Your task to perform on an android device: remove spam from my inbox in the gmail app Image 0: 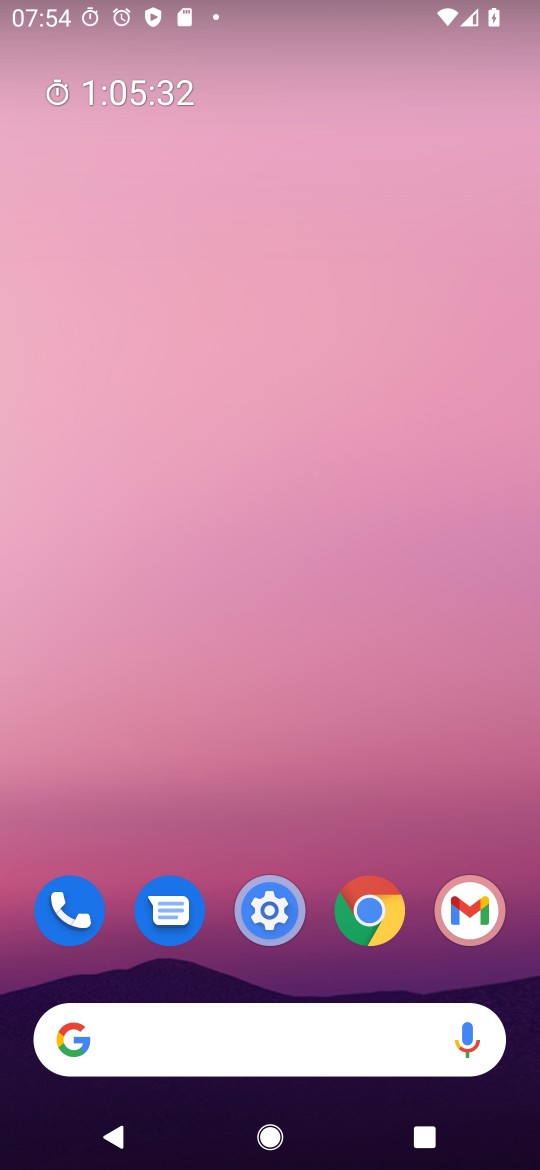
Step 0: drag from (459, 1082) to (362, 3)
Your task to perform on an android device: remove spam from my inbox in the gmail app Image 1: 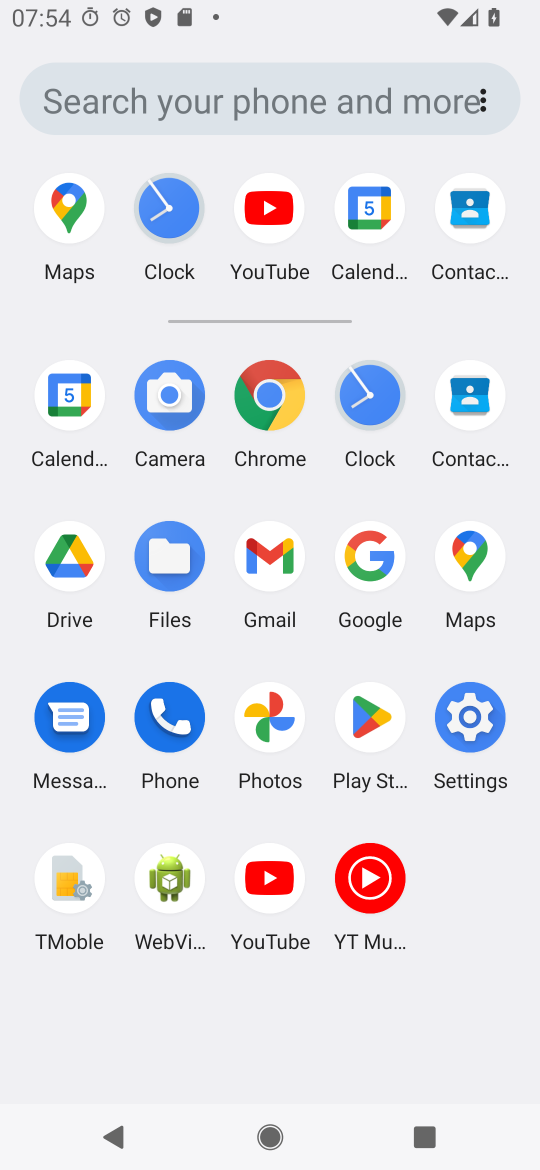
Step 1: click (282, 545)
Your task to perform on an android device: remove spam from my inbox in the gmail app Image 2: 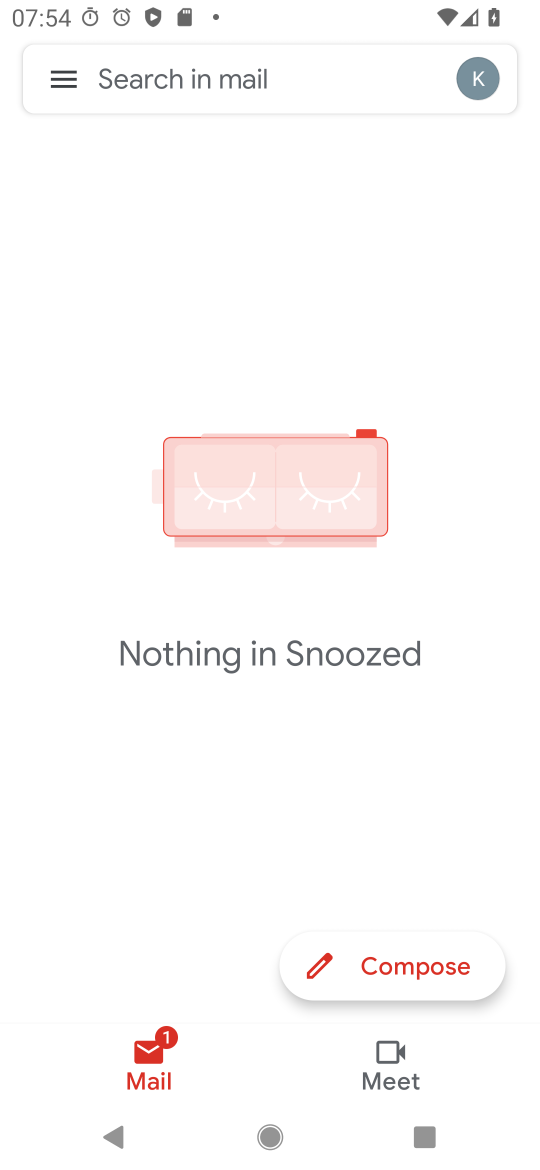
Step 2: click (71, 78)
Your task to perform on an android device: remove spam from my inbox in the gmail app Image 3: 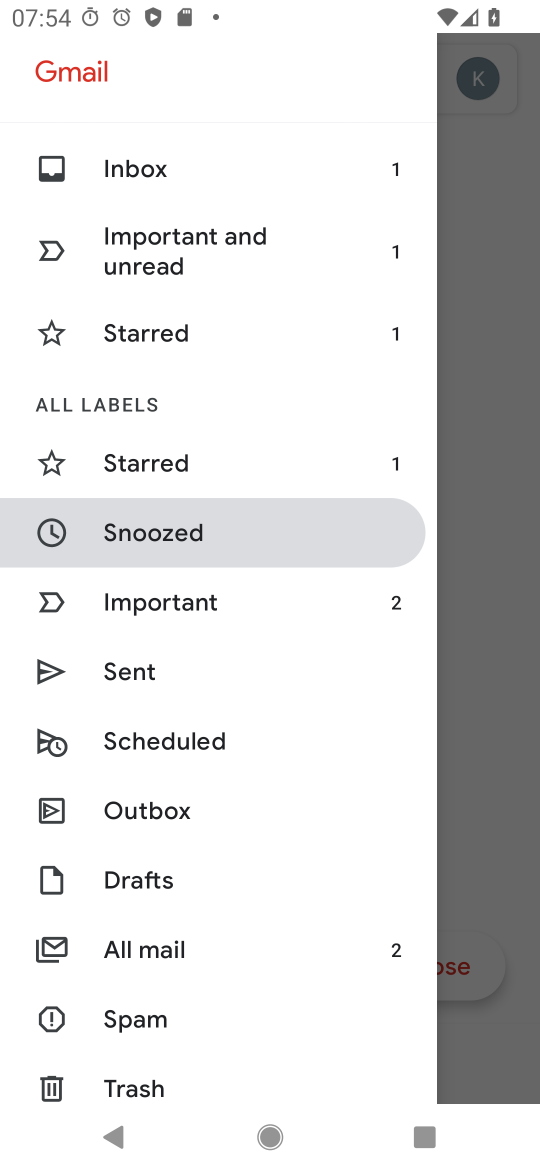
Step 3: click (126, 1019)
Your task to perform on an android device: remove spam from my inbox in the gmail app Image 4: 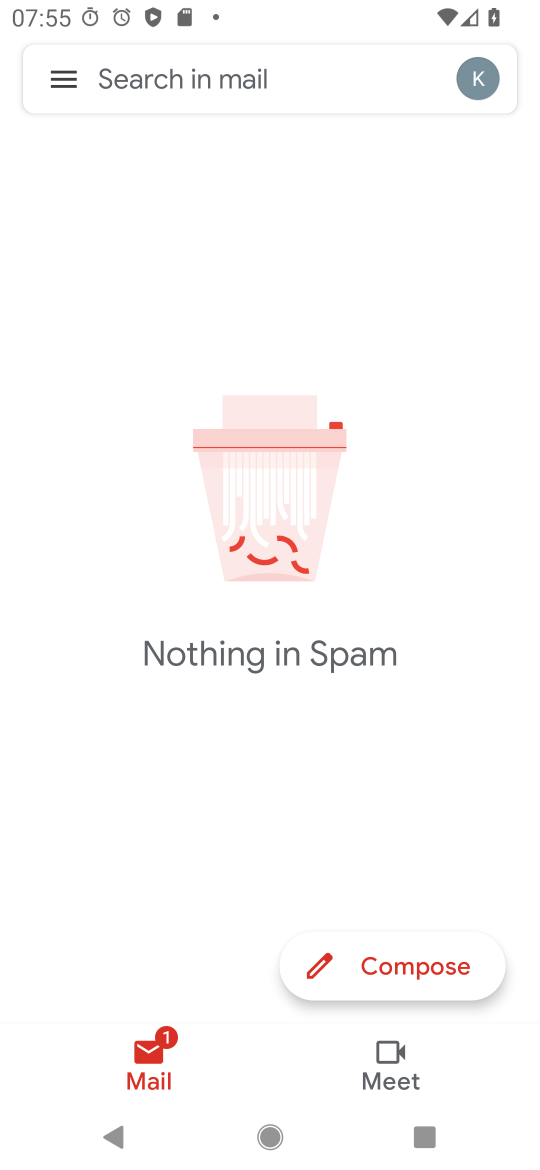
Step 4: task complete